Your task to perform on an android device: turn on wifi Image 0: 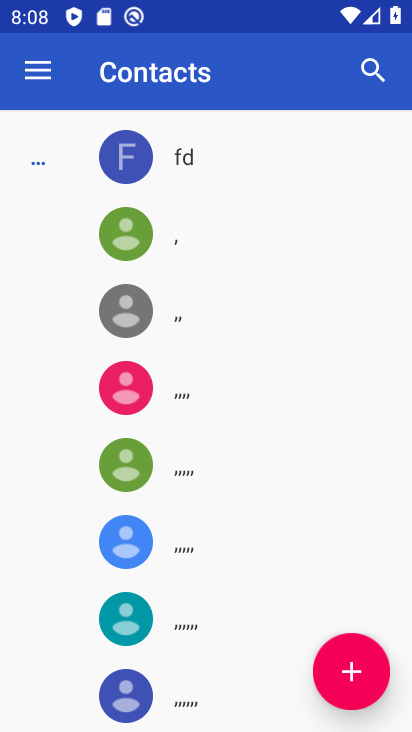
Step 0: press home button
Your task to perform on an android device: turn on wifi Image 1: 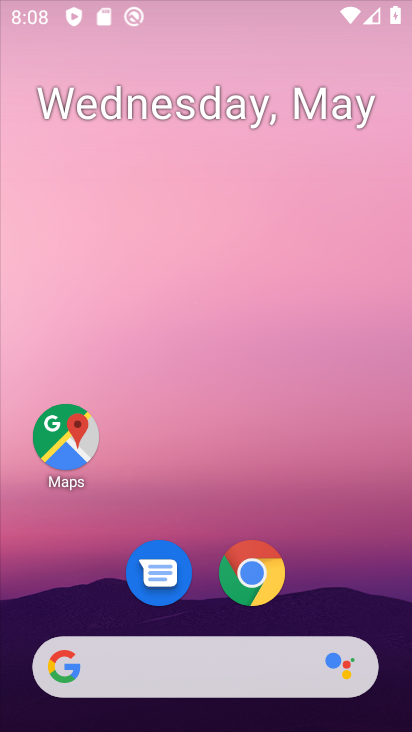
Step 1: drag from (339, 605) to (347, 153)
Your task to perform on an android device: turn on wifi Image 2: 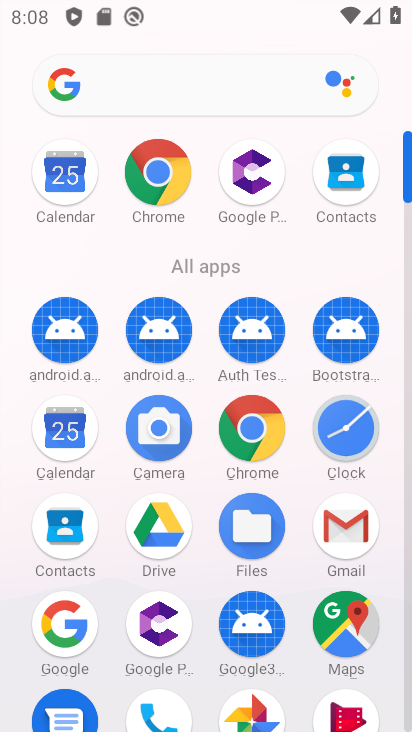
Step 2: drag from (190, 612) to (175, 233)
Your task to perform on an android device: turn on wifi Image 3: 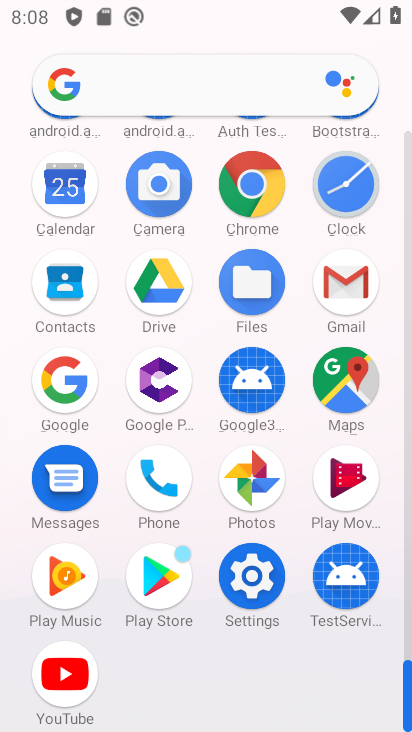
Step 3: drag from (245, 580) to (87, 219)
Your task to perform on an android device: turn on wifi Image 4: 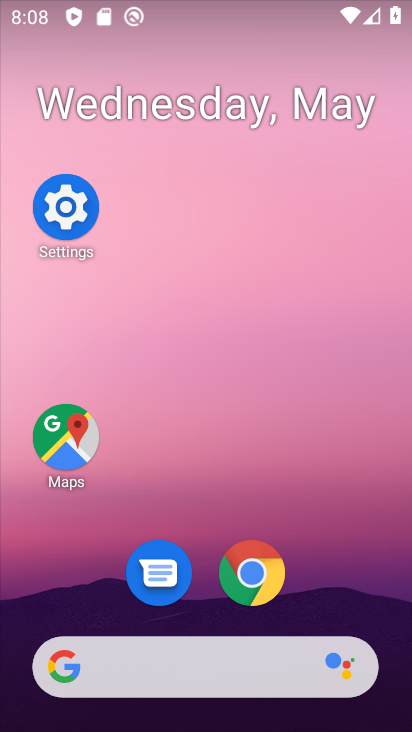
Step 4: click (87, 218)
Your task to perform on an android device: turn on wifi Image 5: 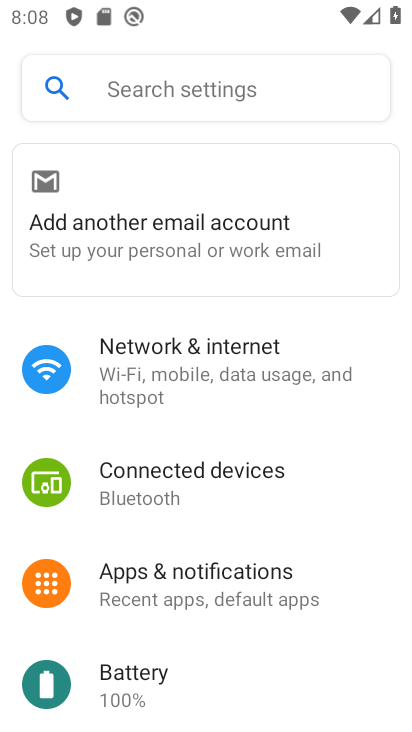
Step 5: click (198, 380)
Your task to perform on an android device: turn on wifi Image 6: 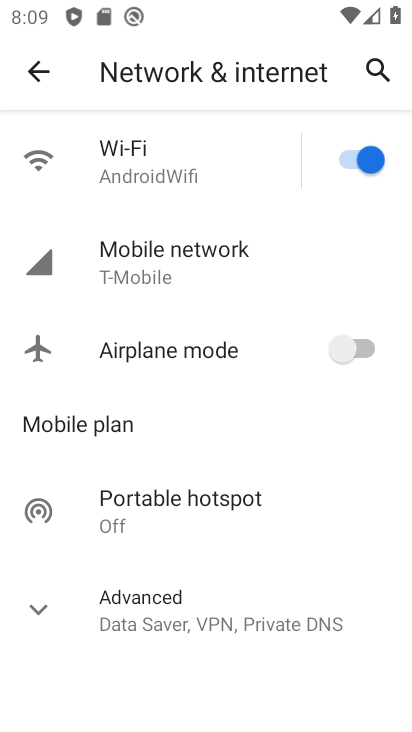
Step 6: task complete